Your task to perform on an android device: Open Google Chrome and click the shortcut for Amazon.com Image 0: 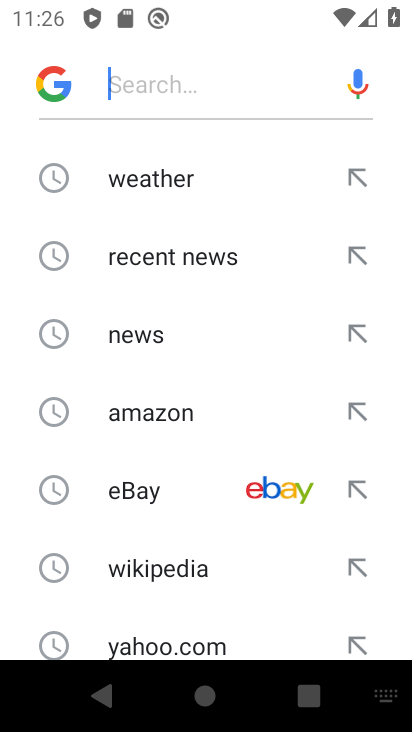
Step 0: press home button
Your task to perform on an android device: Open Google Chrome and click the shortcut for Amazon.com Image 1: 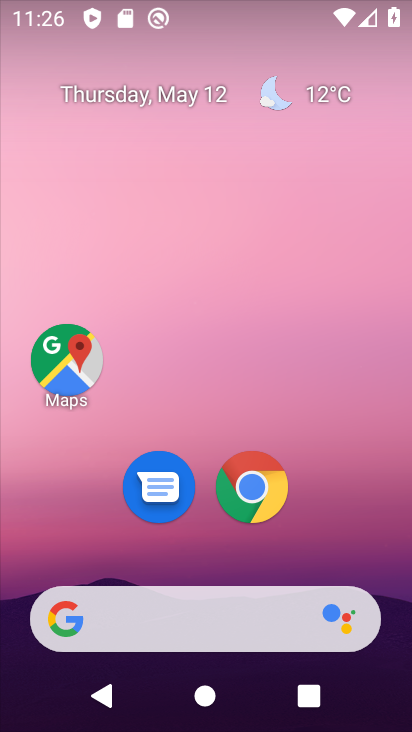
Step 1: drag from (260, 480) to (334, 480)
Your task to perform on an android device: Open Google Chrome and click the shortcut for Amazon.com Image 2: 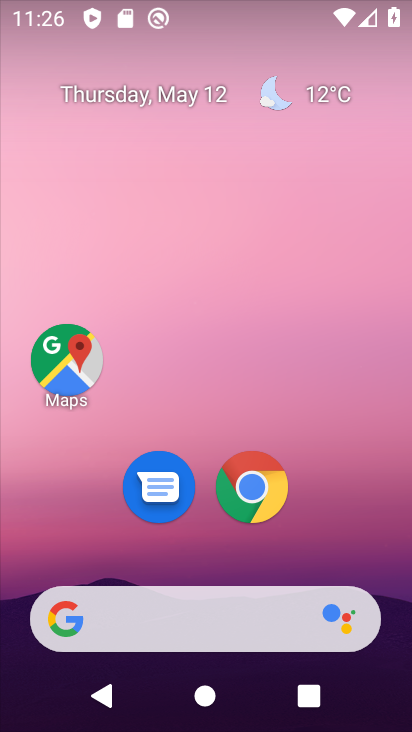
Step 2: click (256, 498)
Your task to perform on an android device: Open Google Chrome and click the shortcut for Amazon.com Image 3: 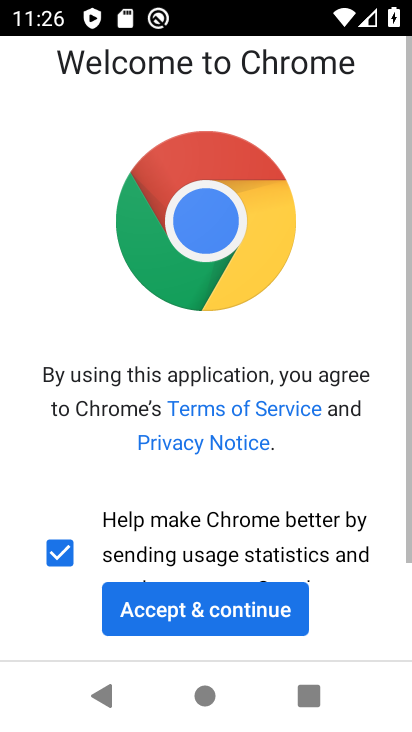
Step 3: click (194, 613)
Your task to perform on an android device: Open Google Chrome and click the shortcut for Amazon.com Image 4: 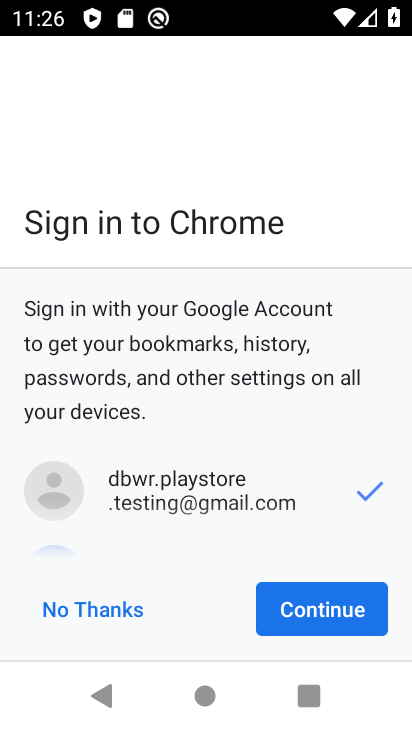
Step 4: click (366, 598)
Your task to perform on an android device: Open Google Chrome and click the shortcut for Amazon.com Image 5: 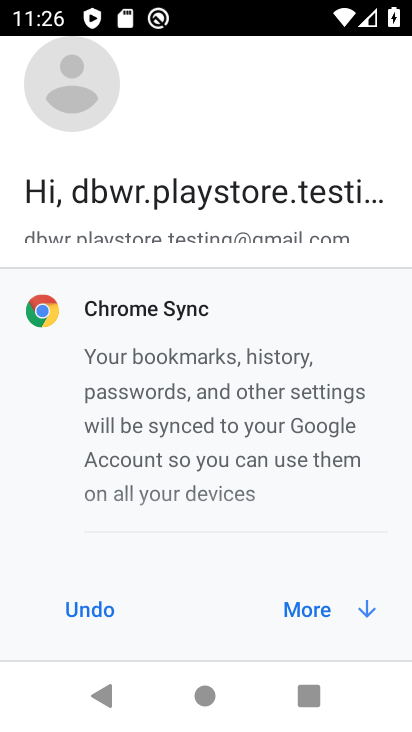
Step 5: click (324, 611)
Your task to perform on an android device: Open Google Chrome and click the shortcut for Amazon.com Image 6: 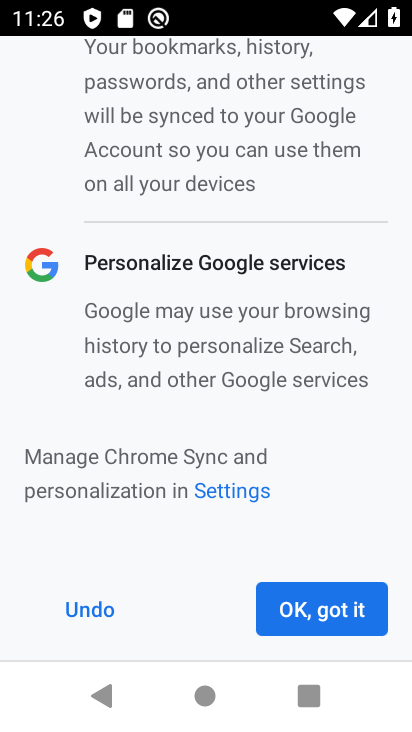
Step 6: click (304, 615)
Your task to perform on an android device: Open Google Chrome and click the shortcut for Amazon.com Image 7: 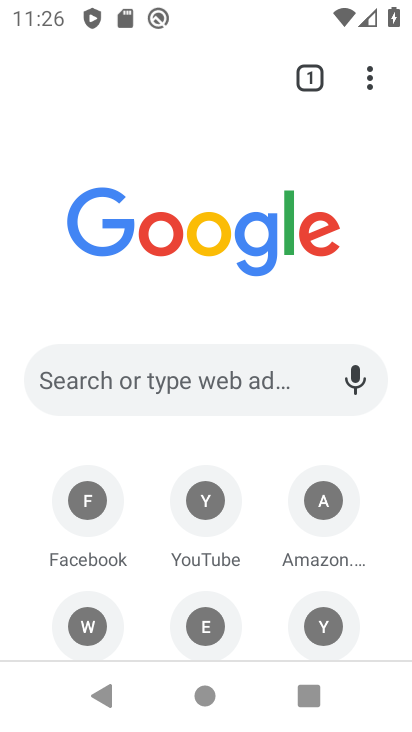
Step 7: click (339, 508)
Your task to perform on an android device: Open Google Chrome and click the shortcut for Amazon.com Image 8: 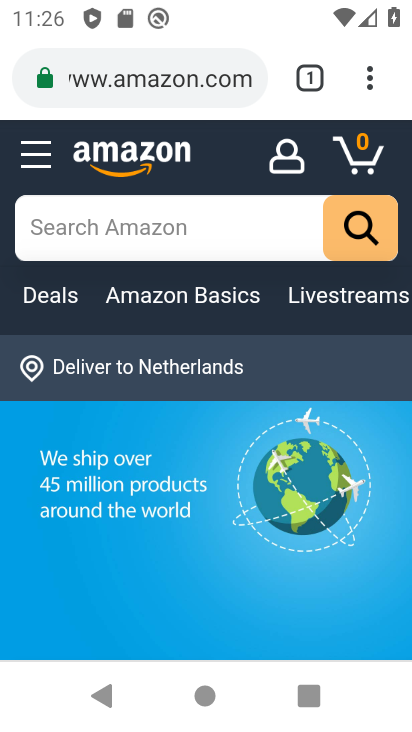
Step 8: task complete